Your task to perform on an android device: check data usage Image 0: 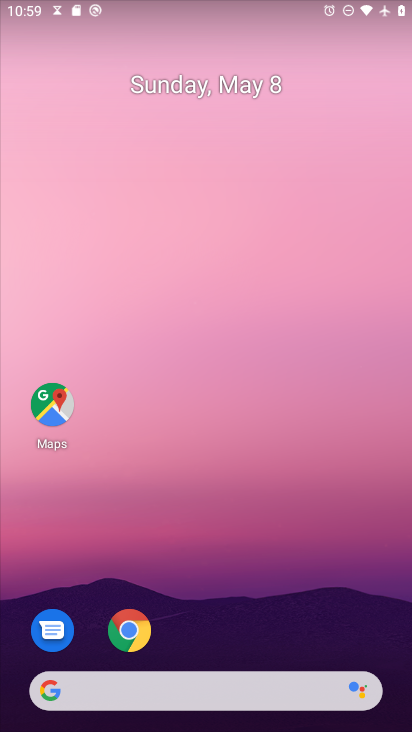
Step 0: drag from (207, 678) to (306, 85)
Your task to perform on an android device: check data usage Image 1: 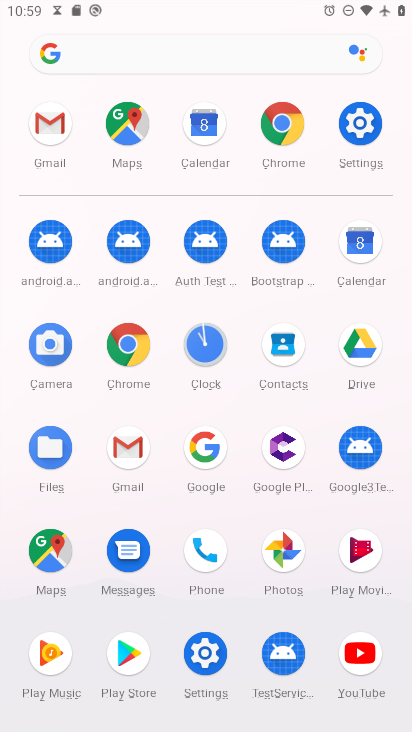
Step 1: click (358, 125)
Your task to perform on an android device: check data usage Image 2: 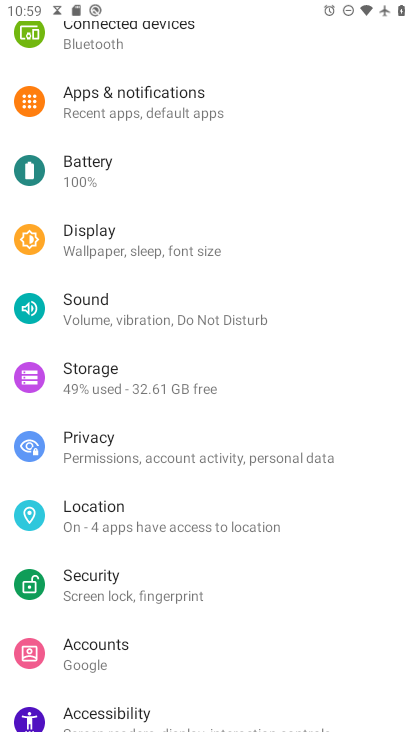
Step 2: drag from (273, 110) to (241, 468)
Your task to perform on an android device: check data usage Image 3: 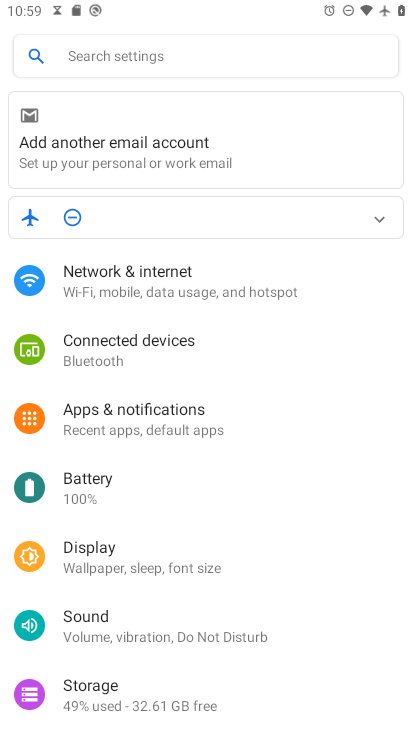
Step 3: click (135, 287)
Your task to perform on an android device: check data usage Image 4: 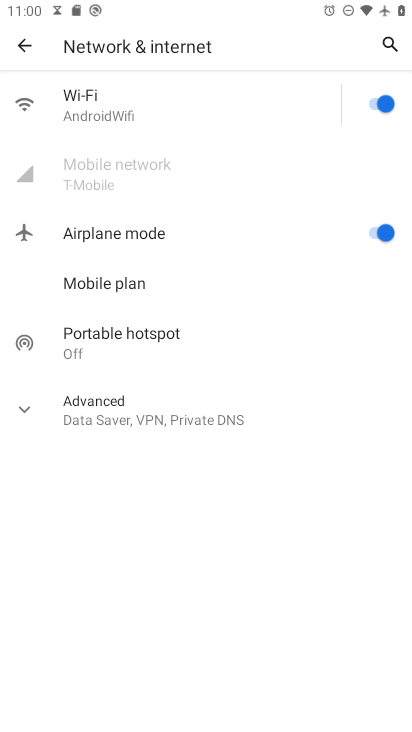
Step 4: click (102, 117)
Your task to perform on an android device: check data usage Image 5: 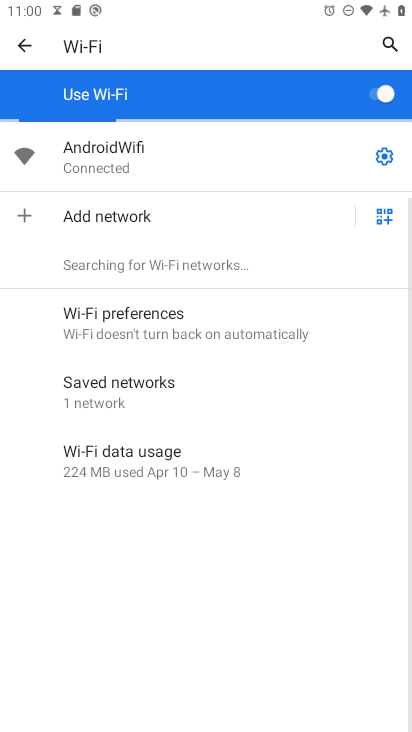
Step 5: click (149, 458)
Your task to perform on an android device: check data usage Image 6: 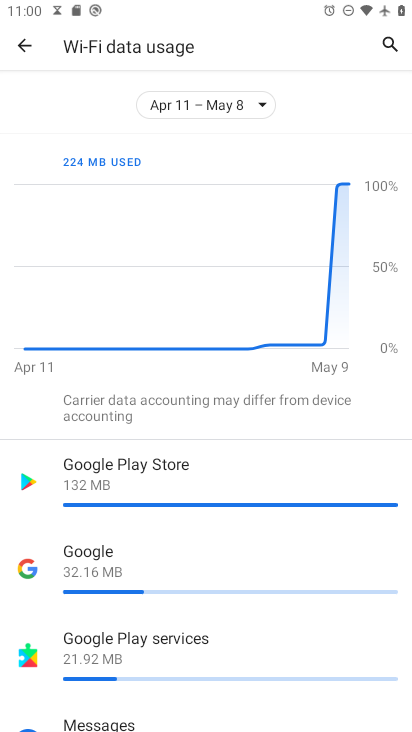
Step 6: task complete